Your task to perform on an android device: Open the stopwatch Image 0: 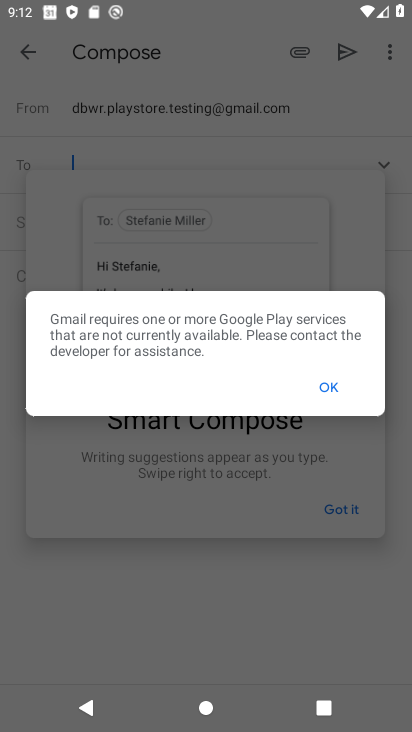
Step 0: press home button
Your task to perform on an android device: Open the stopwatch Image 1: 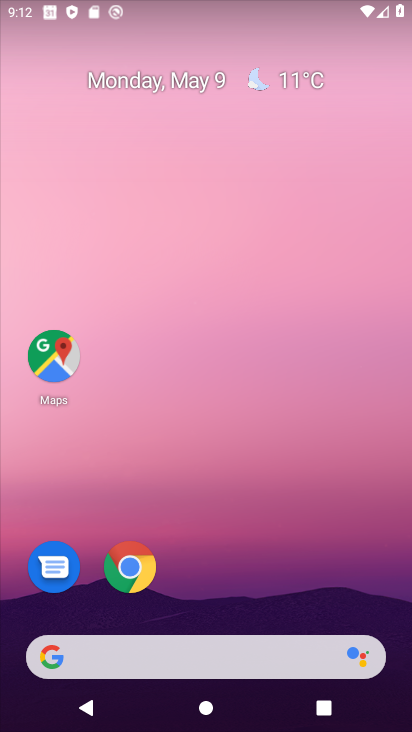
Step 1: drag from (276, 534) to (344, 121)
Your task to perform on an android device: Open the stopwatch Image 2: 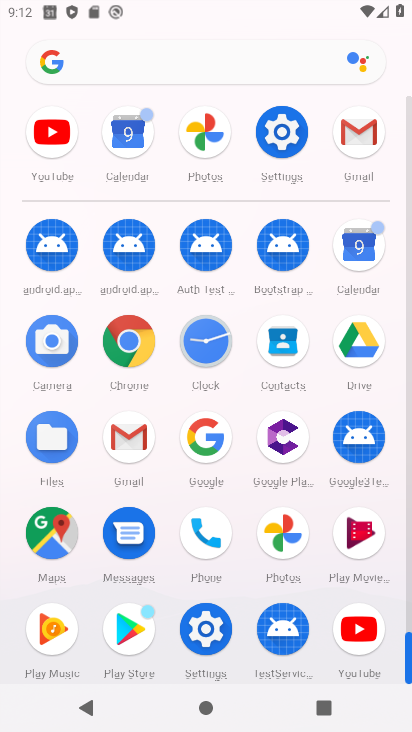
Step 2: click (204, 330)
Your task to perform on an android device: Open the stopwatch Image 3: 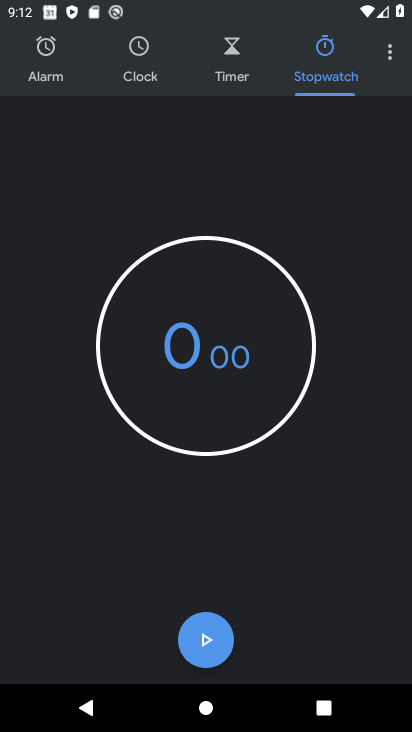
Step 3: click (324, 57)
Your task to perform on an android device: Open the stopwatch Image 4: 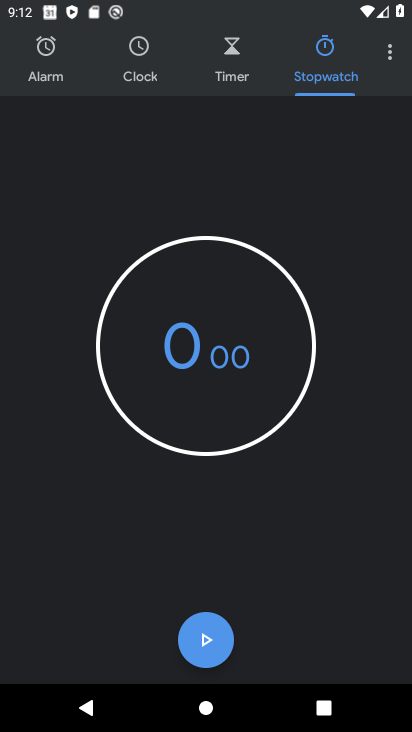
Step 4: task complete